Your task to perform on an android device: Open calendar and show me the third week of next month Image 0: 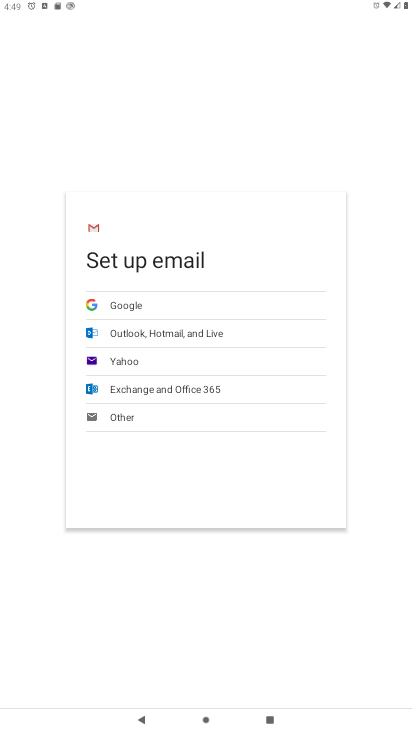
Step 0: press home button
Your task to perform on an android device: Open calendar and show me the third week of next month Image 1: 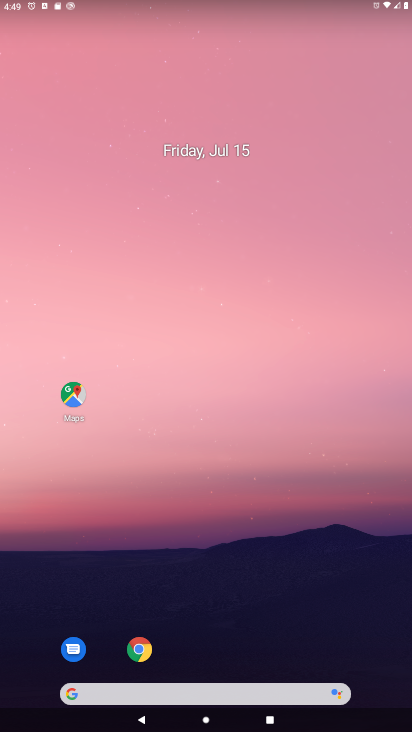
Step 1: drag from (395, 667) to (316, 50)
Your task to perform on an android device: Open calendar and show me the third week of next month Image 2: 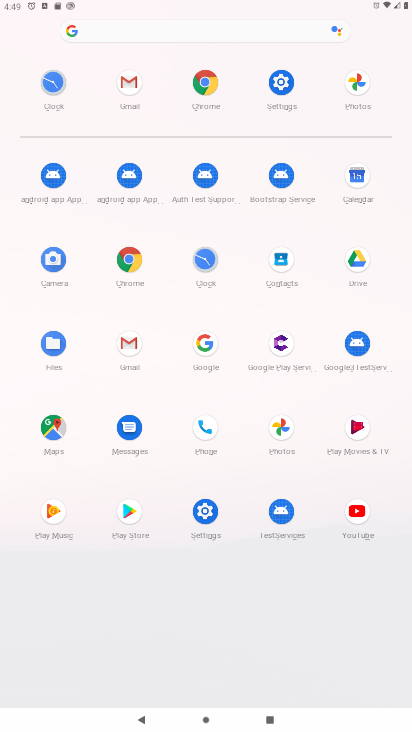
Step 2: click (358, 175)
Your task to perform on an android device: Open calendar and show me the third week of next month Image 3: 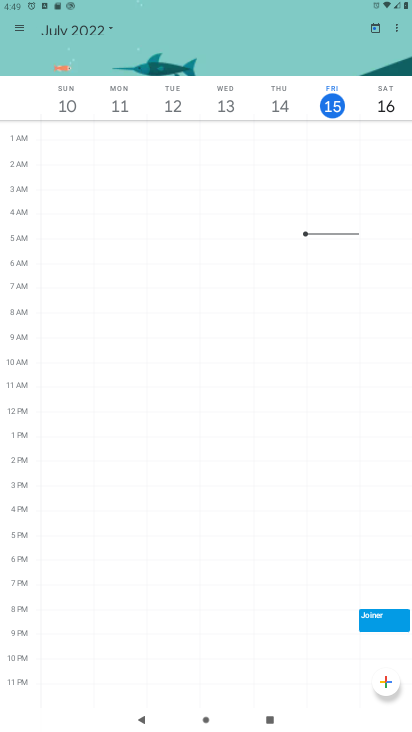
Step 3: click (109, 28)
Your task to perform on an android device: Open calendar and show me the third week of next month Image 4: 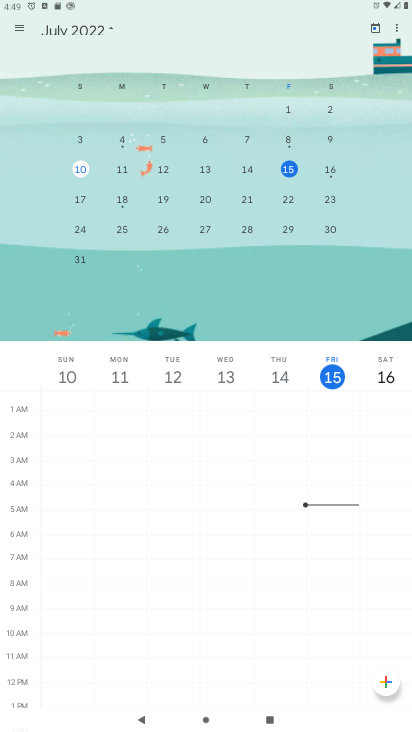
Step 4: drag from (329, 227) to (5, 183)
Your task to perform on an android device: Open calendar and show me the third week of next month Image 5: 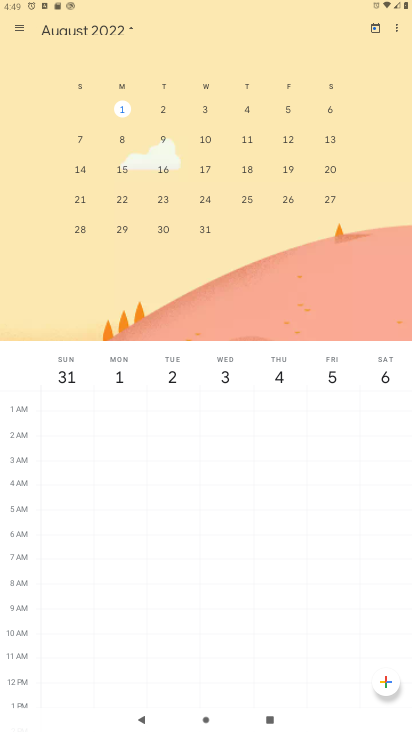
Step 5: click (78, 201)
Your task to perform on an android device: Open calendar and show me the third week of next month Image 6: 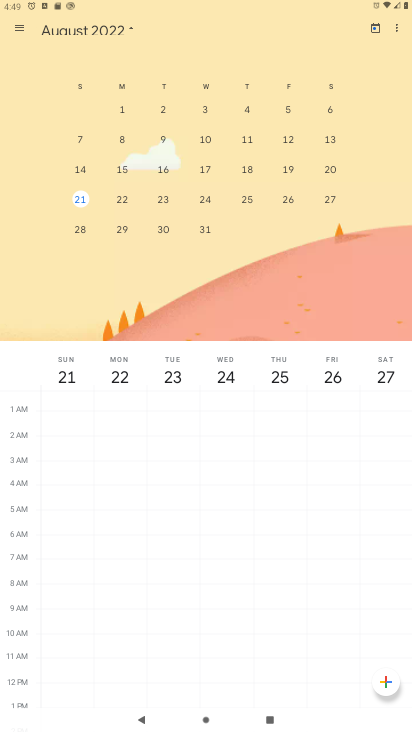
Step 6: task complete